Your task to perform on an android device: make emails show in primary in the gmail app Image 0: 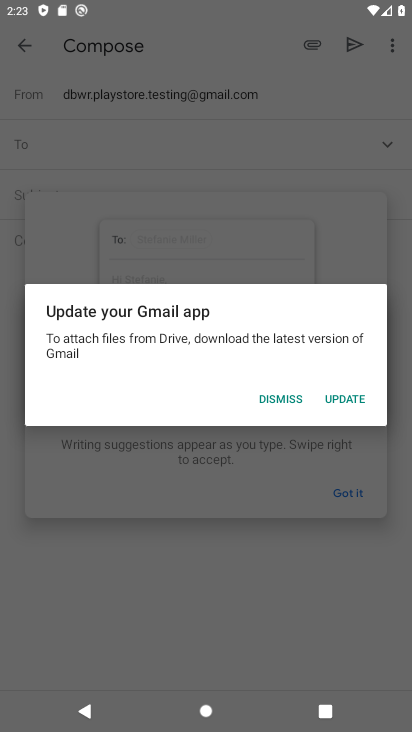
Step 0: press home button
Your task to perform on an android device: make emails show in primary in the gmail app Image 1: 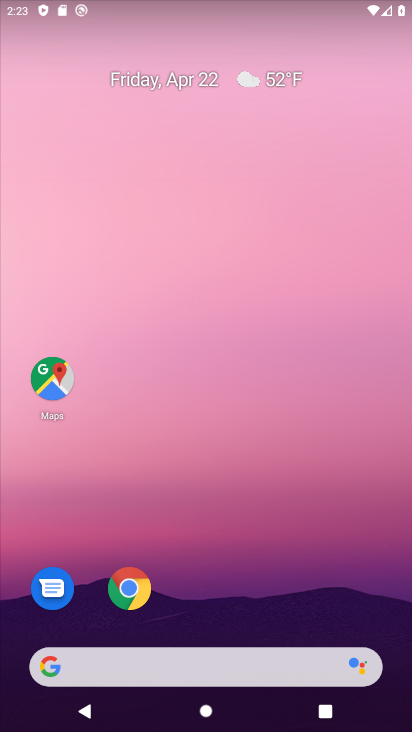
Step 1: drag from (352, 603) to (330, 12)
Your task to perform on an android device: make emails show in primary in the gmail app Image 2: 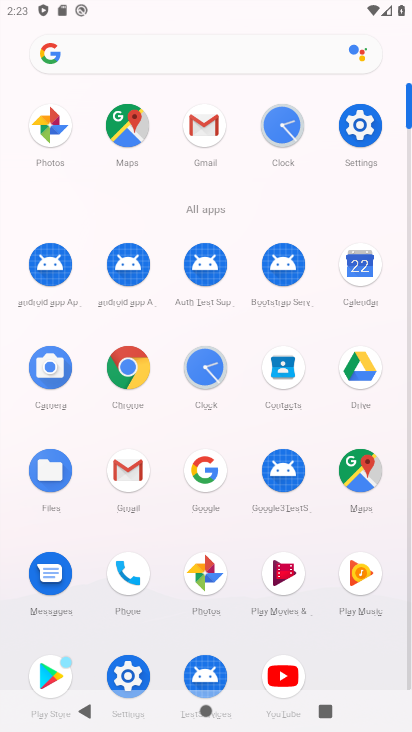
Step 2: click (204, 128)
Your task to perform on an android device: make emails show in primary in the gmail app Image 3: 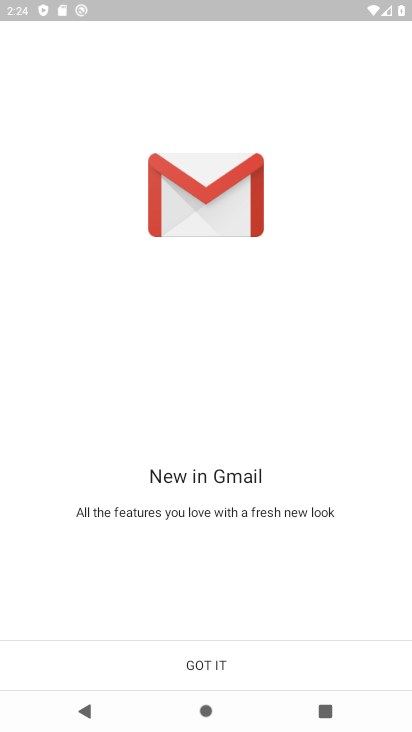
Step 3: click (197, 665)
Your task to perform on an android device: make emails show in primary in the gmail app Image 4: 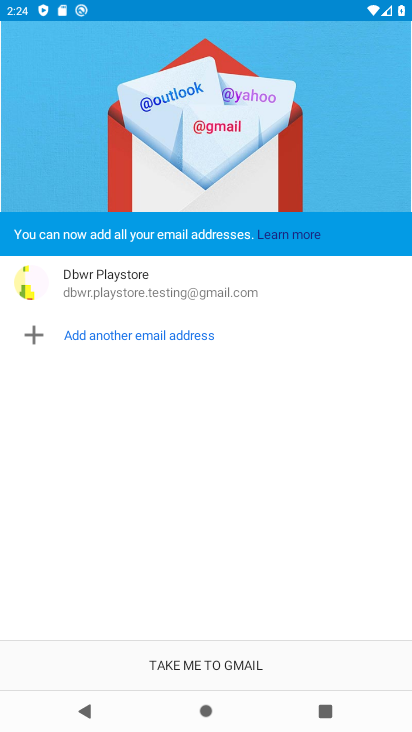
Step 4: click (204, 662)
Your task to perform on an android device: make emails show in primary in the gmail app Image 5: 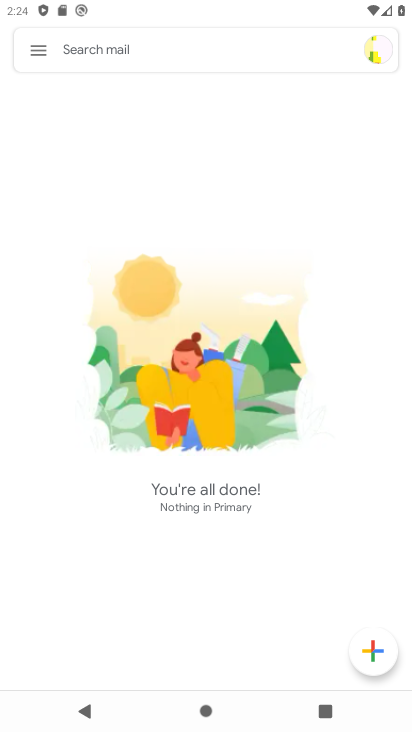
Step 5: click (33, 50)
Your task to perform on an android device: make emails show in primary in the gmail app Image 6: 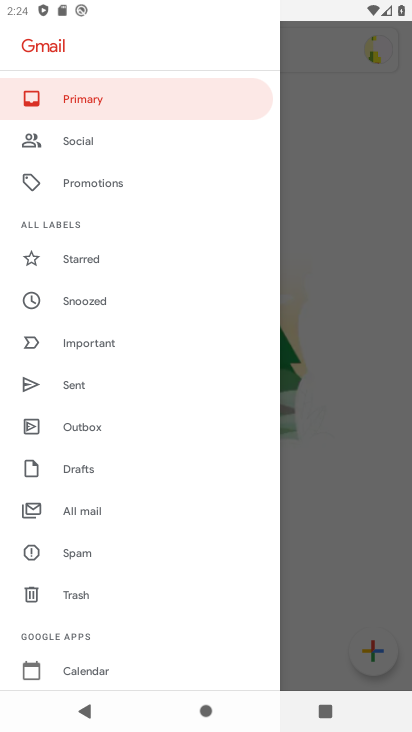
Step 6: drag from (161, 641) to (123, 278)
Your task to perform on an android device: make emails show in primary in the gmail app Image 7: 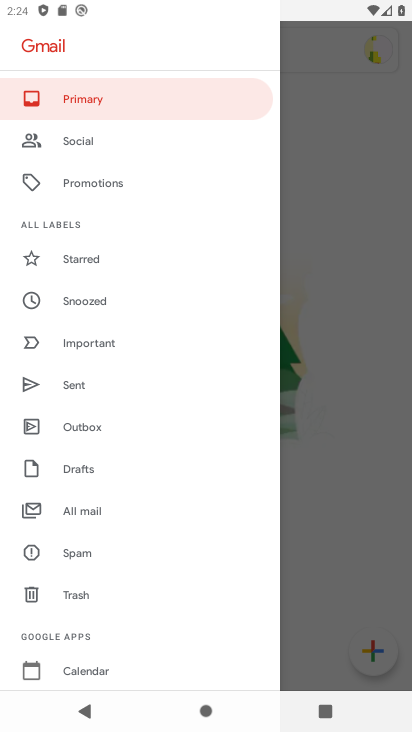
Step 7: drag from (145, 577) to (174, 145)
Your task to perform on an android device: make emails show in primary in the gmail app Image 8: 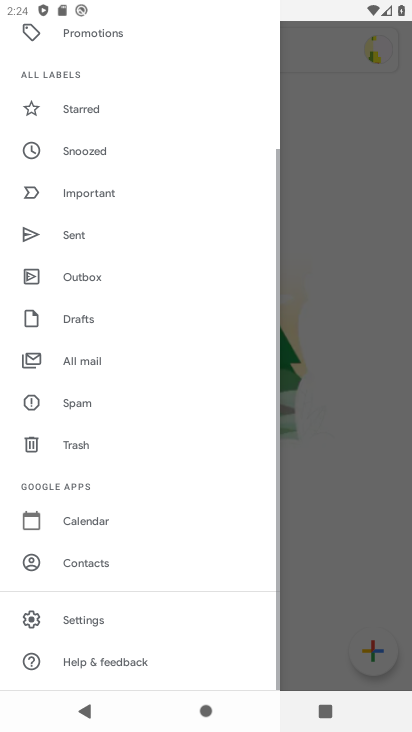
Step 8: click (84, 619)
Your task to perform on an android device: make emails show in primary in the gmail app Image 9: 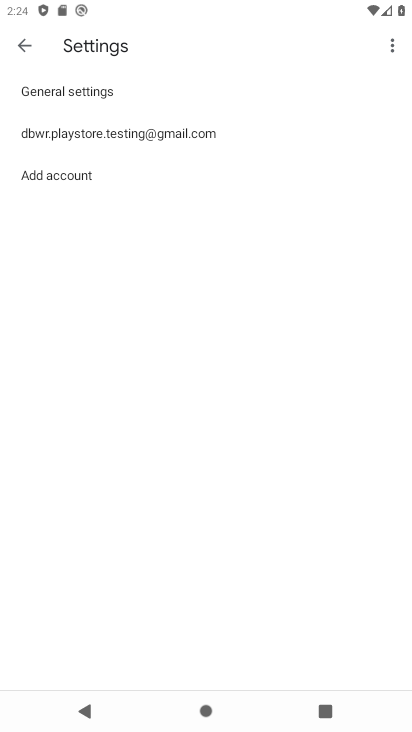
Step 9: click (86, 135)
Your task to perform on an android device: make emails show in primary in the gmail app Image 10: 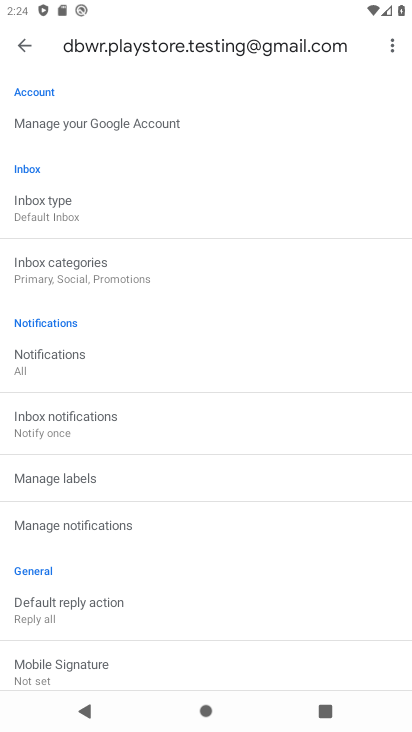
Step 10: click (55, 278)
Your task to perform on an android device: make emails show in primary in the gmail app Image 11: 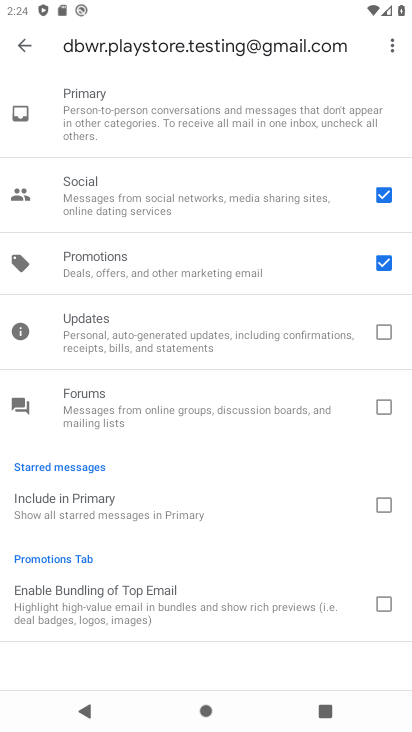
Step 11: click (381, 200)
Your task to perform on an android device: make emails show in primary in the gmail app Image 12: 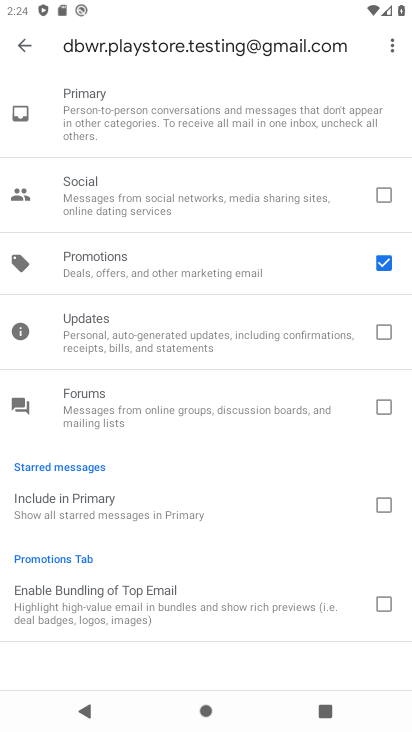
Step 12: click (381, 261)
Your task to perform on an android device: make emails show in primary in the gmail app Image 13: 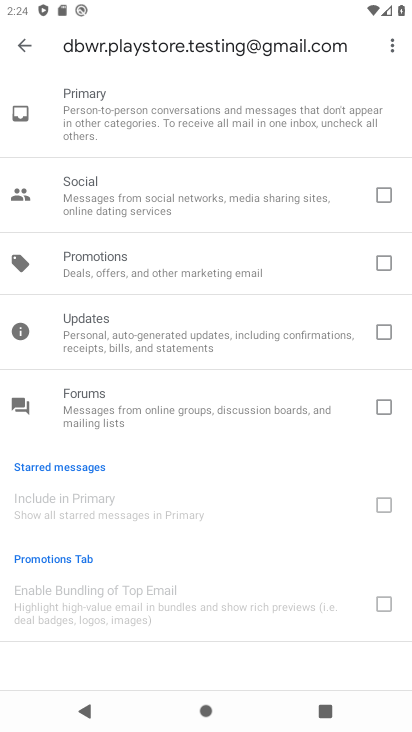
Step 13: click (26, 49)
Your task to perform on an android device: make emails show in primary in the gmail app Image 14: 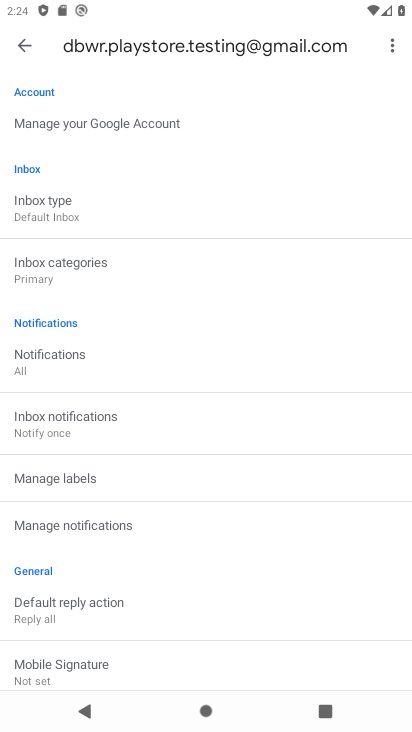
Step 14: task complete